Your task to perform on an android device: Search for seafood restaurants on Google Maps Image 0: 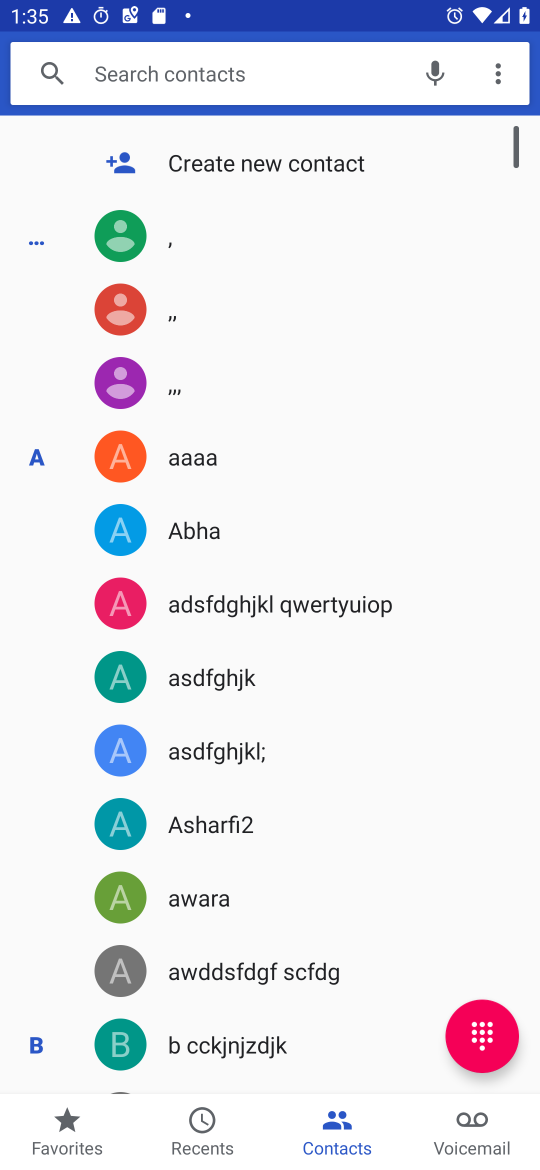
Step 0: press home button
Your task to perform on an android device: Search for seafood restaurants on Google Maps Image 1: 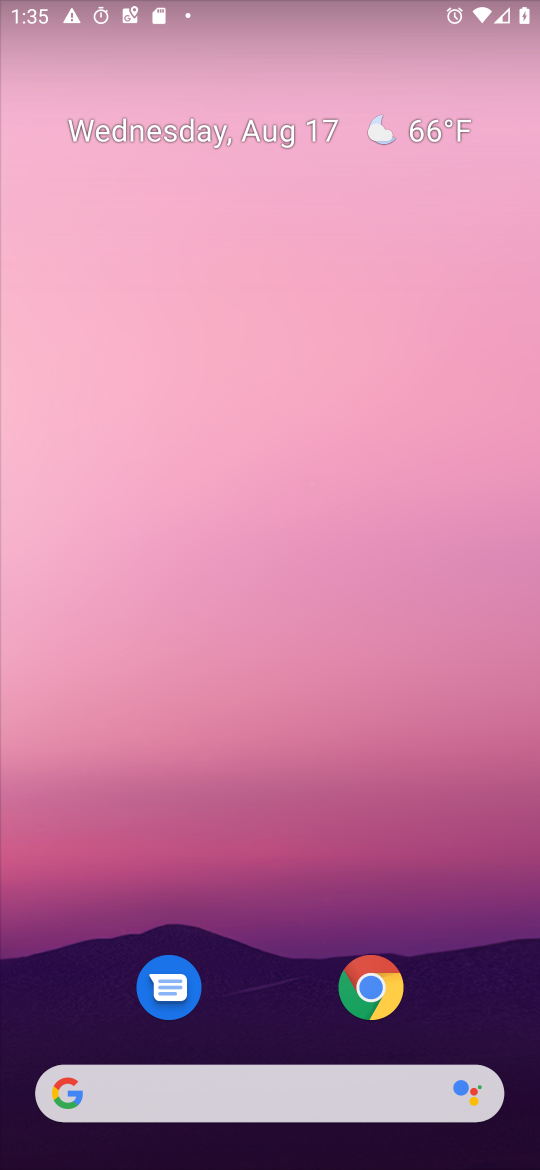
Step 1: drag from (48, 1139) to (182, 332)
Your task to perform on an android device: Search for seafood restaurants on Google Maps Image 2: 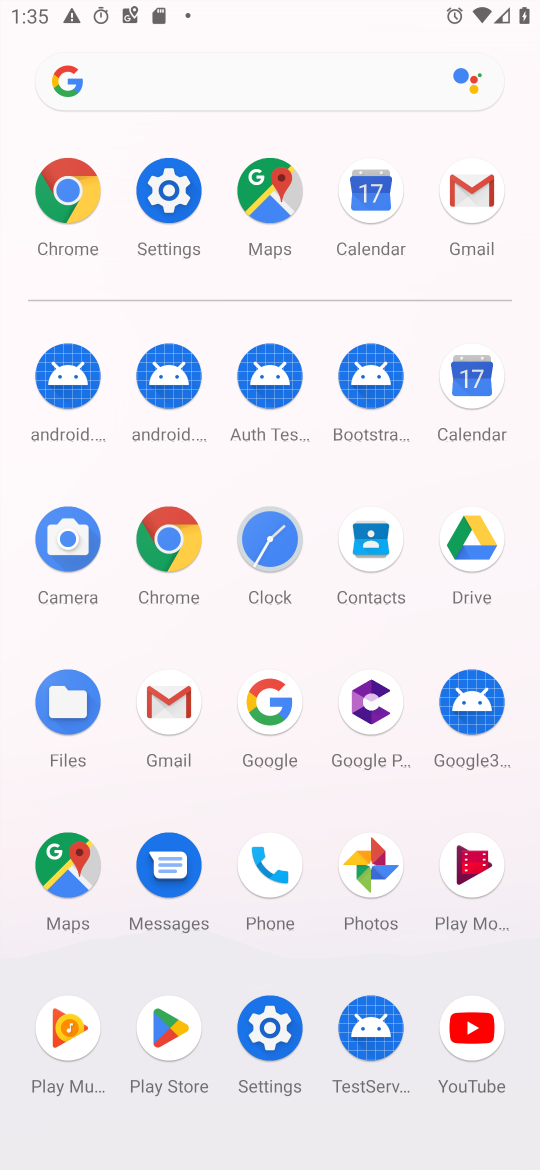
Step 2: click (89, 885)
Your task to perform on an android device: Search for seafood restaurants on Google Maps Image 3: 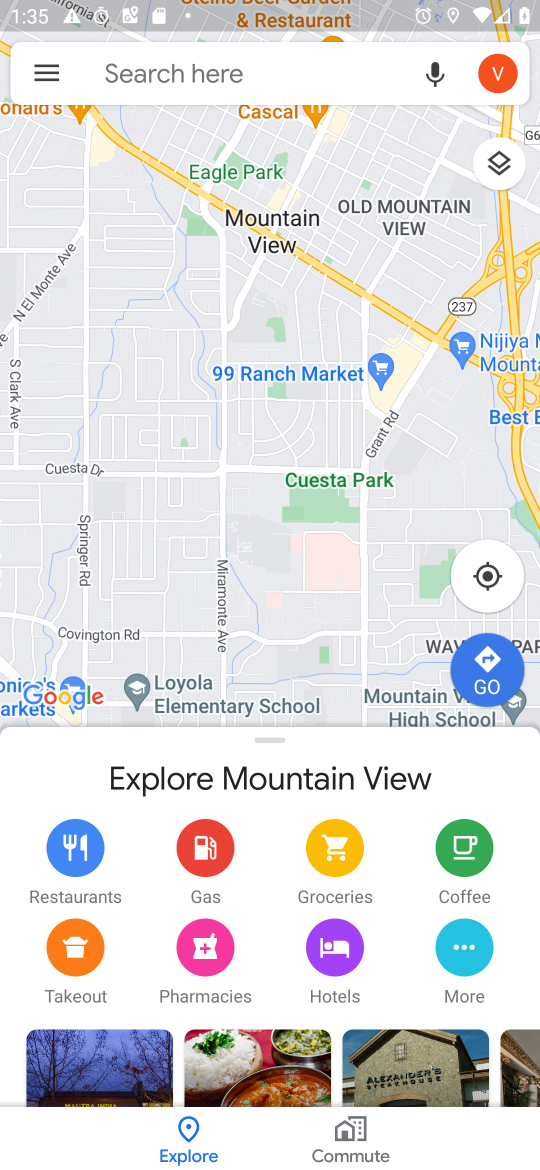
Step 3: click (107, 57)
Your task to perform on an android device: Search for seafood restaurants on Google Maps Image 4: 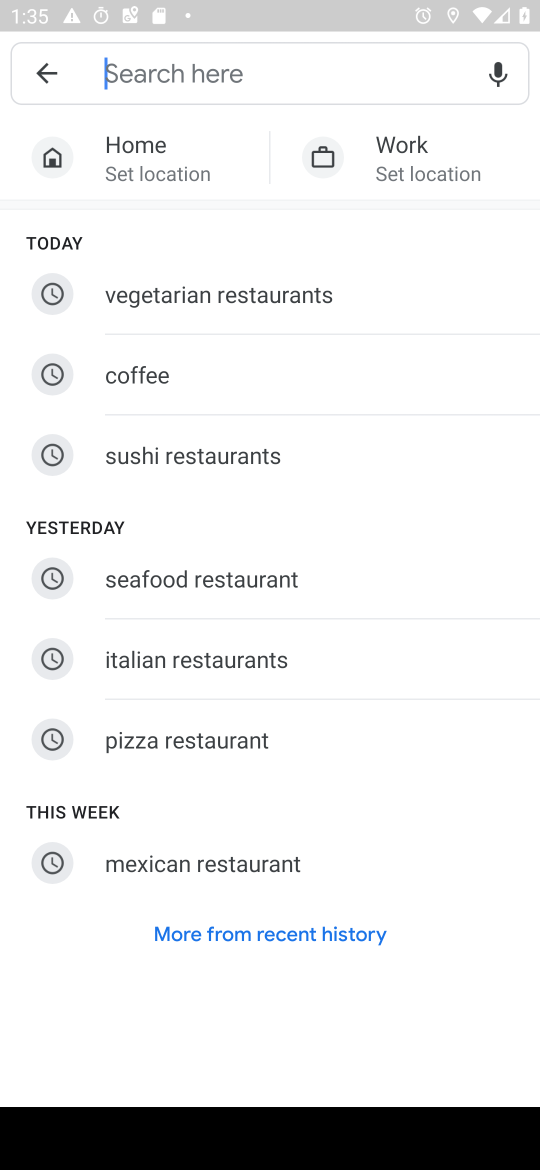
Step 4: type "seafood restaurants"
Your task to perform on an android device: Search for seafood restaurants on Google Maps Image 5: 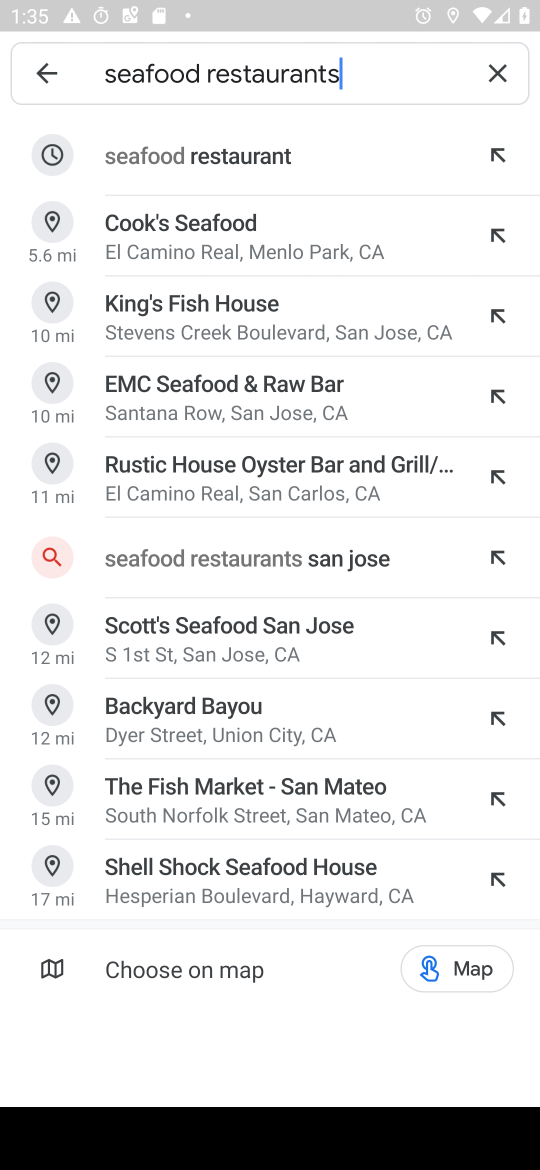
Step 5: type ""
Your task to perform on an android device: Search for seafood restaurants on Google Maps Image 6: 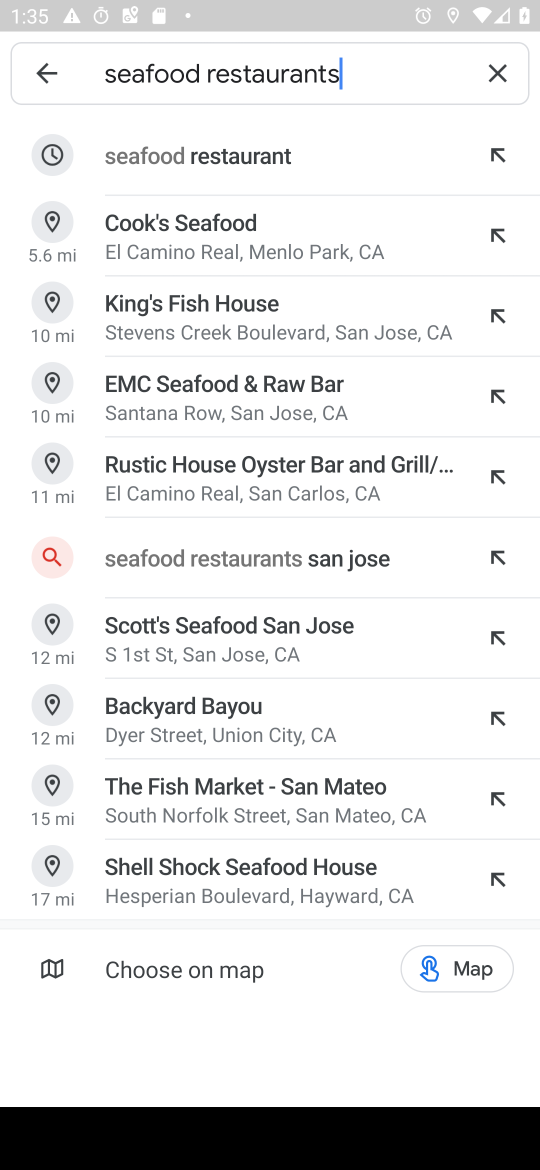
Step 6: task complete